Your task to perform on an android device: delete the emails in spam in the gmail app Image 0: 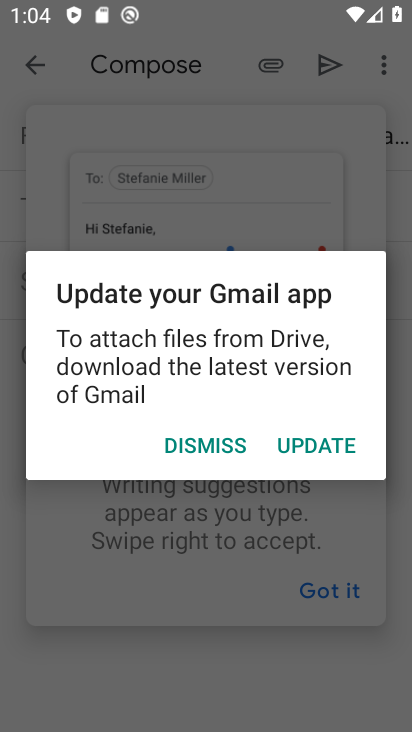
Step 0: press home button
Your task to perform on an android device: delete the emails in spam in the gmail app Image 1: 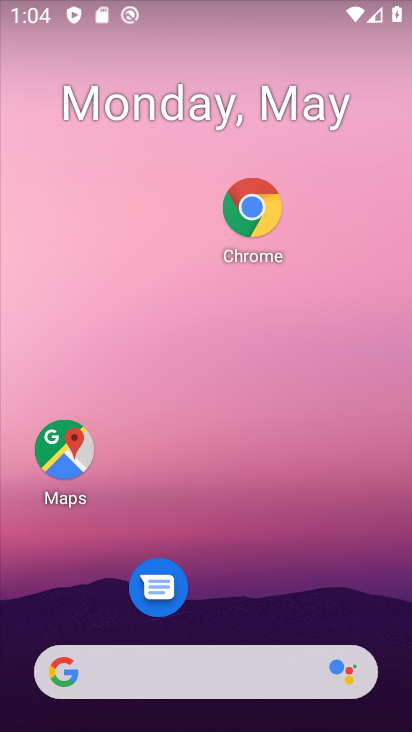
Step 1: drag from (311, 617) to (227, 226)
Your task to perform on an android device: delete the emails in spam in the gmail app Image 2: 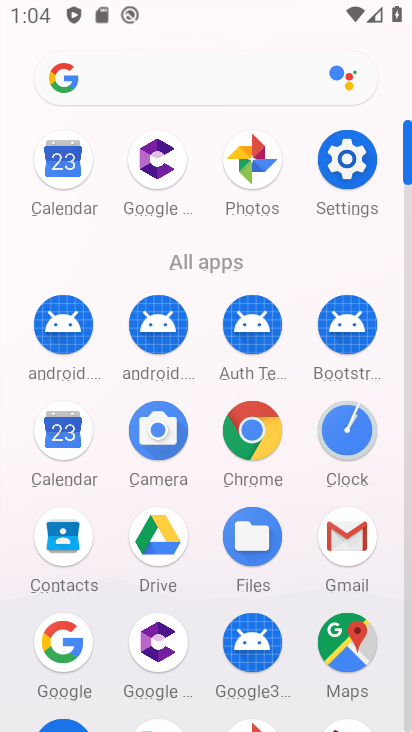
Step 2: click (337, 527)
Your task to perform on an android device: delete the emails in spam in the gmail app Image 3: 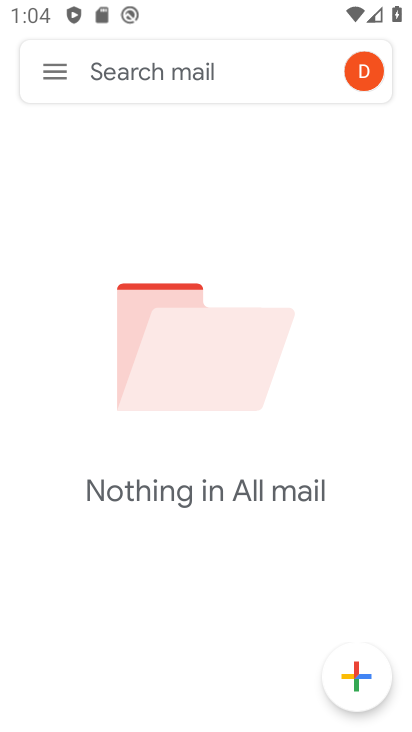
Step 3: click (53, 77)
Your task to perform on an android device: delete the emails in spam in the gmail app Image 4: 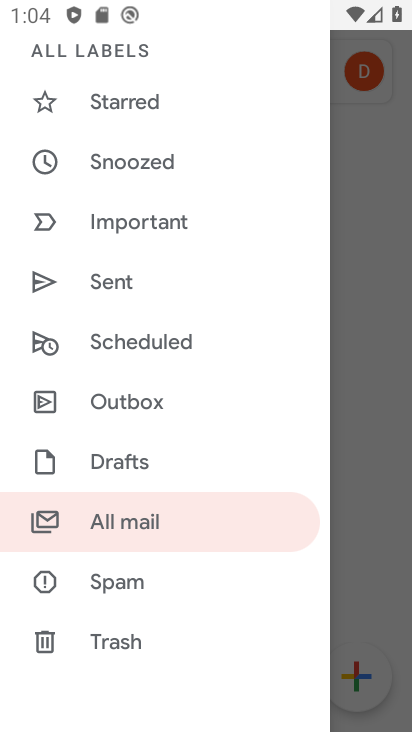
Step 4: click (104, 573)
Your task to perform on an android device: delete the emails in spam in the gmail app Image 5: 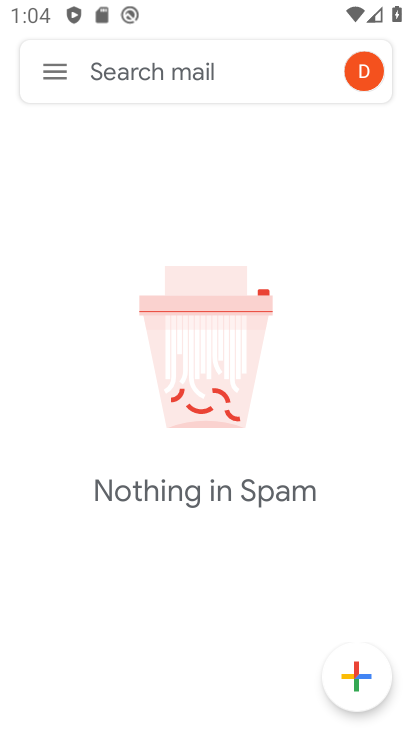
Step 5: task complete